Your task to perform on an android device: visit the assistant section in the google photos Image 0: 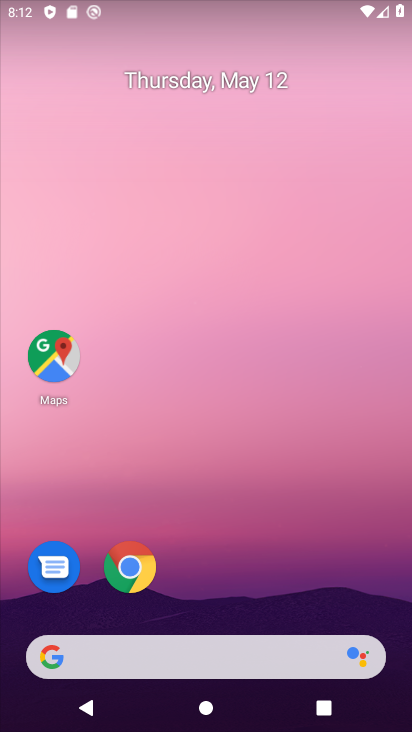
Step 0: drag from (151, 622) to (241, 157)
Your task to perform on an android device: visit the assistant section in the google photos Image 1: 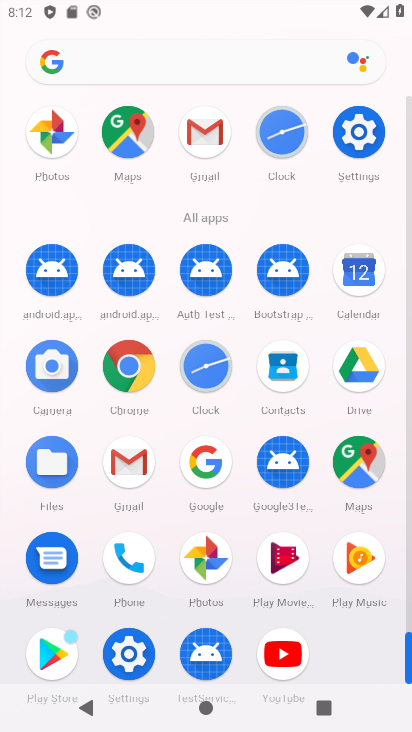
Step 1: click (213, 570)
Your task to perform on an android device: visit the assistant section in the google photos Image 2: 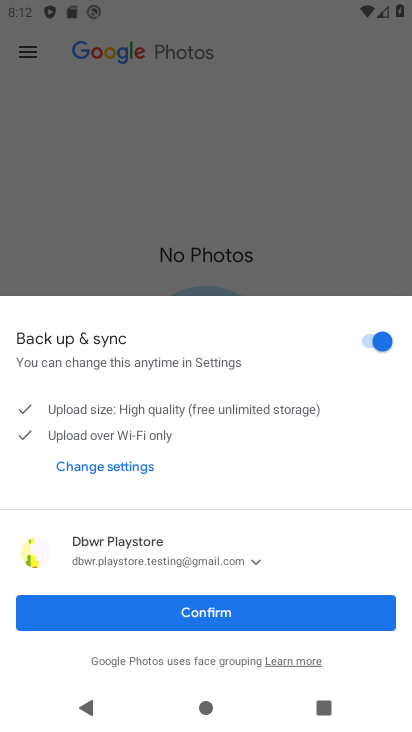
Step 2: click (214, 625)
Your task to perform on an android device: visit the assistant section in the google photos Image 3: 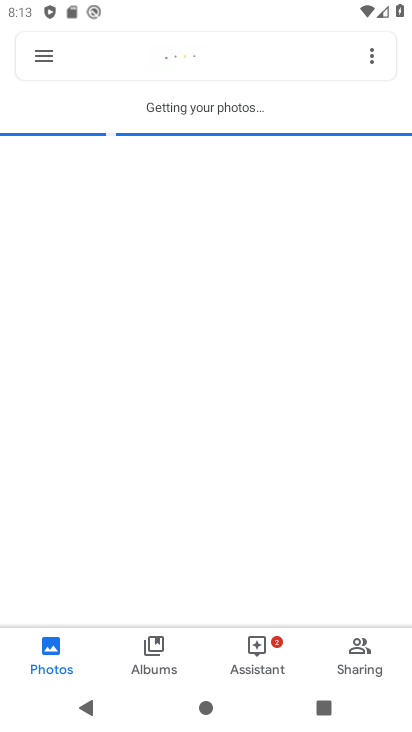
Step 3: click (273, 653)
Your task to perform on an android device: visit the assistant section in the google photos Image 4: 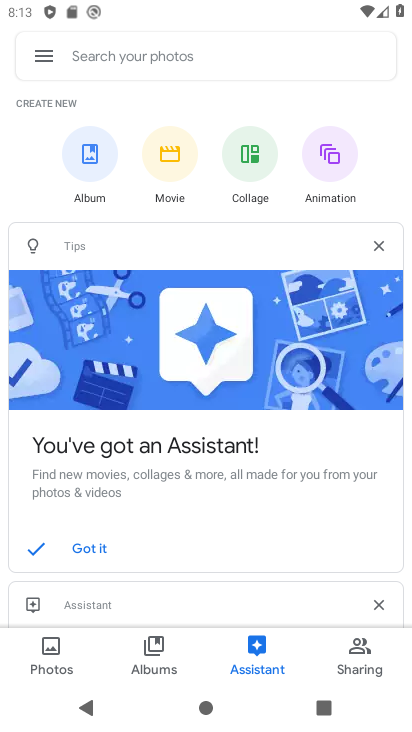
Step 4: task complete